Your task to perform on an android device: clear history in the chrome app Image 0: 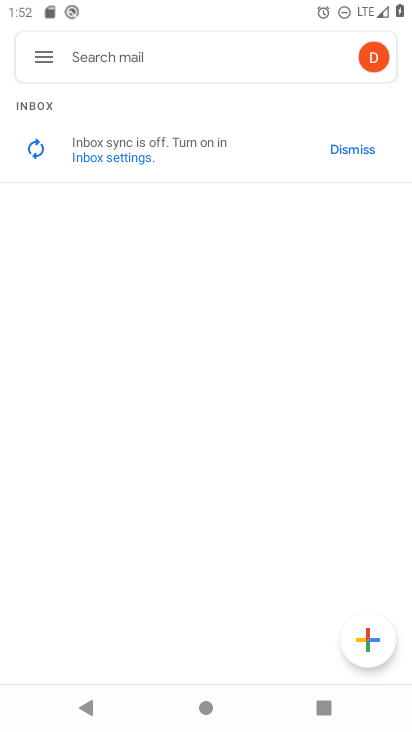
Step 0: press home button
Your task to perform on an android device: clear history in the chrome app Image 1: 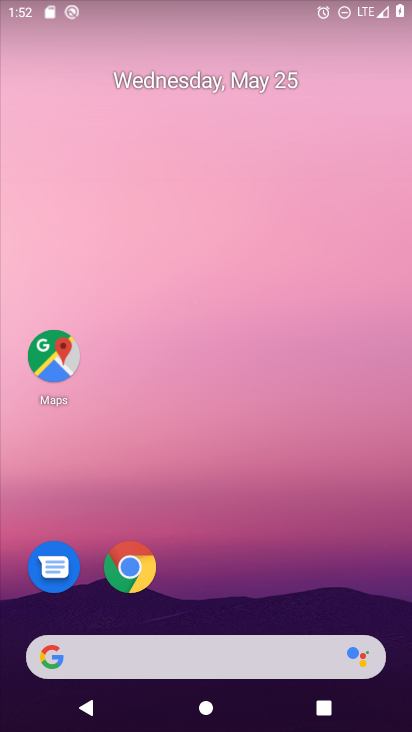
Step 1: click (129, 571)
Your task to perform on an android device: clear history in the chrome app Image 2: 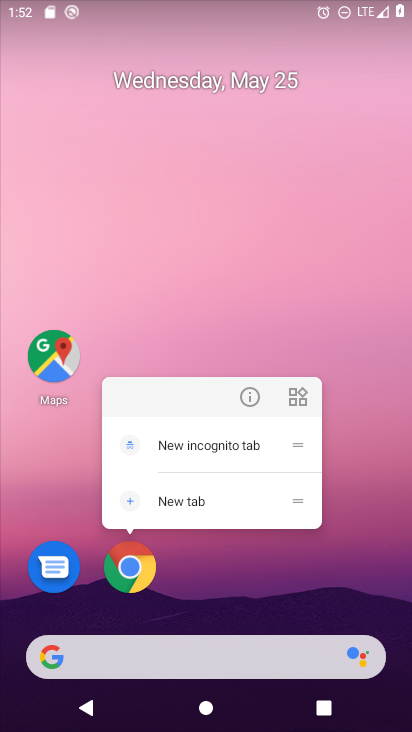
Step 2: click (132, 562)
Your task to perform on an android device: clear history in the chrome app Image 3: 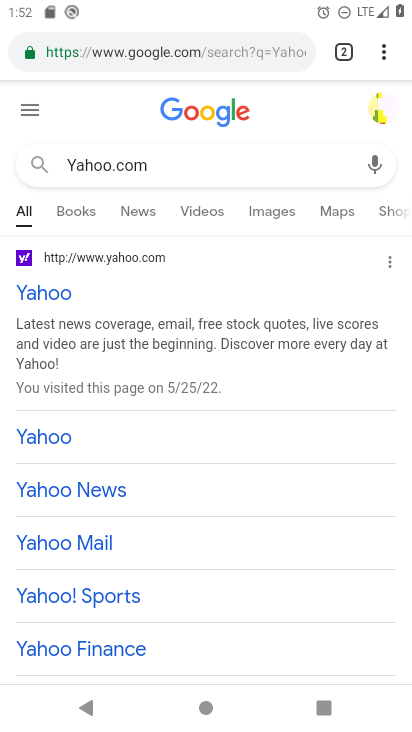
Step 3: click (382, 44)
Your task to perform on an android device: clear history in the chrome app Image 4: 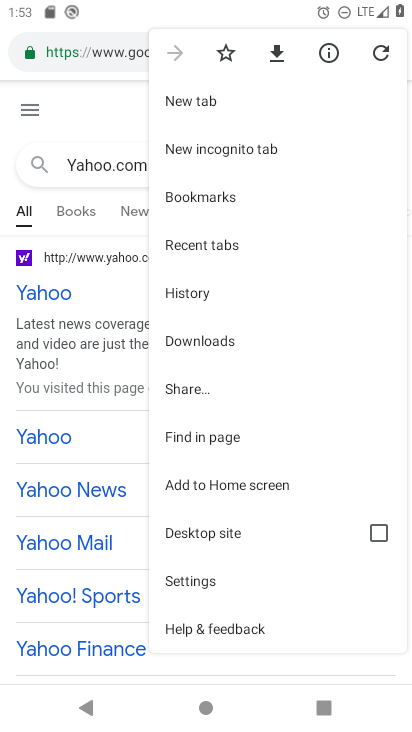
Step 4: click (172, 287)
Your task to perform on an android device: clear history in the chrome app Image 5: 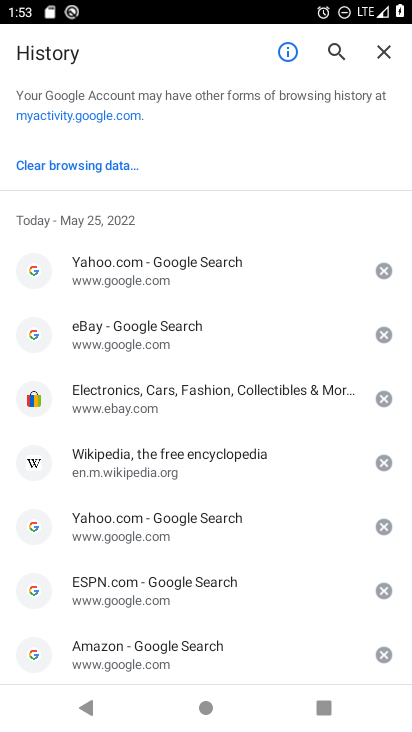
Step 5: click (113, 156)
Your task to perform on an android device: clear history in the chrome app Image 6: 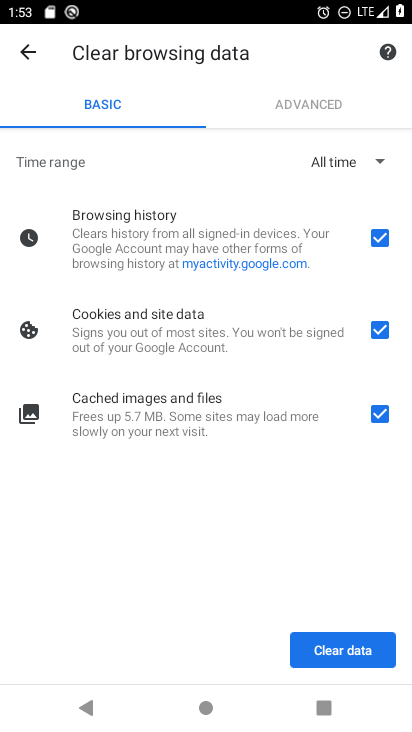
Step 6: click (318, 648)
Your task to perform on an android device: clear history in the chrome app Image 7: 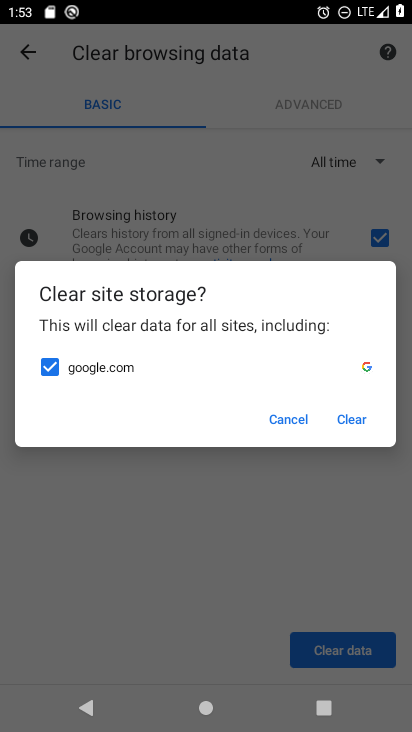
Step 7: click (354, 414)
Your task to perform on an android device: clear history in the chrome app Image 8: 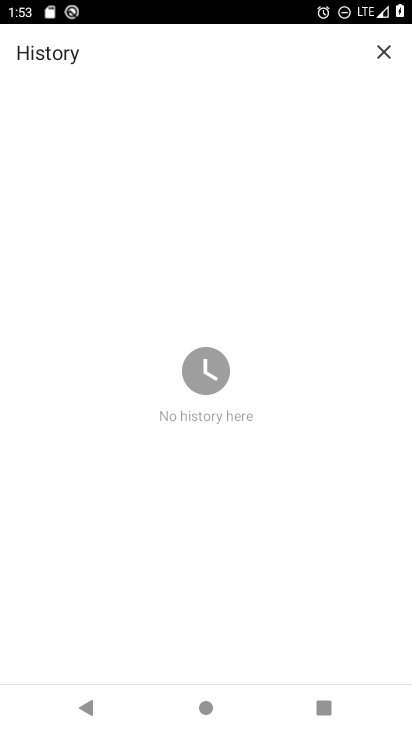
Step 8: task complete